Your task to perform on an android device: Is it going to rain this weekend? Image 0: 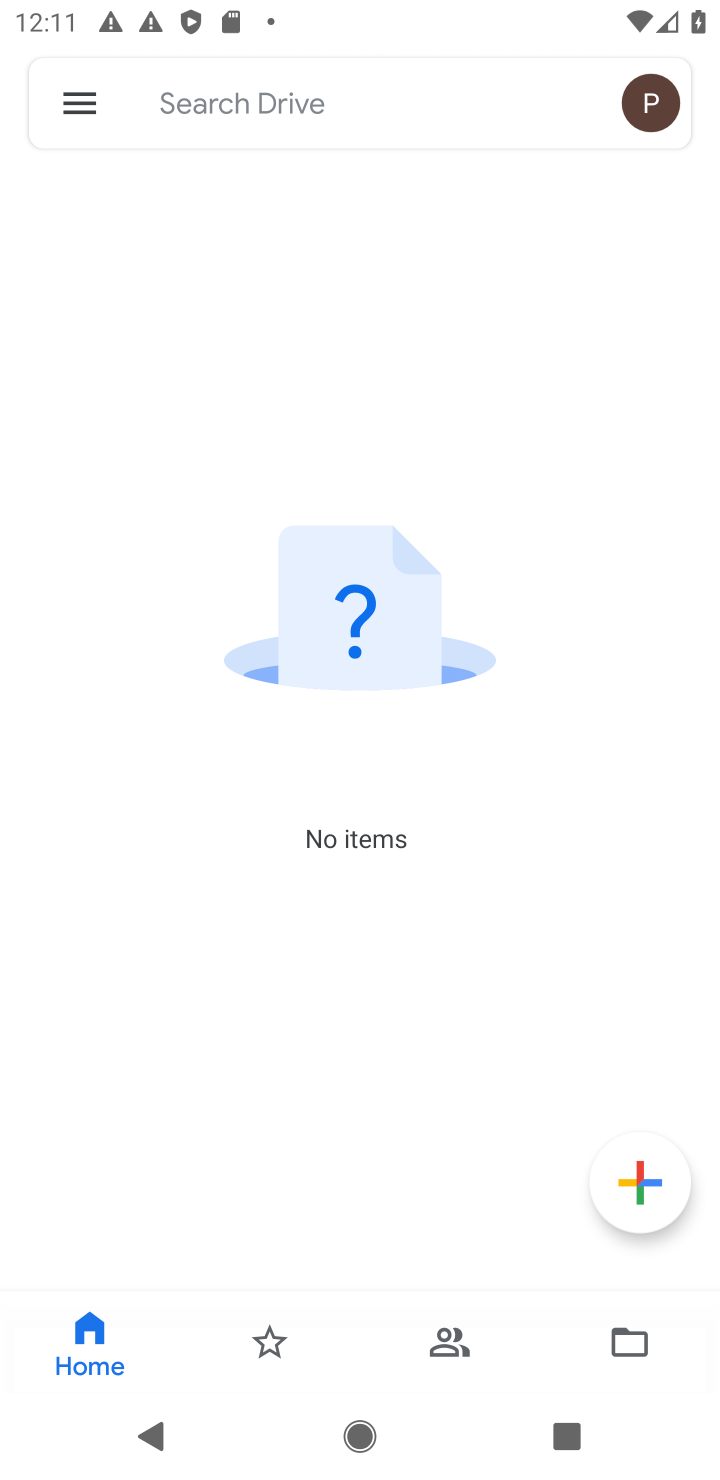
Step 0: press home button
Your task to perform on an android device: Is it going to rain this weekend? Image 1: 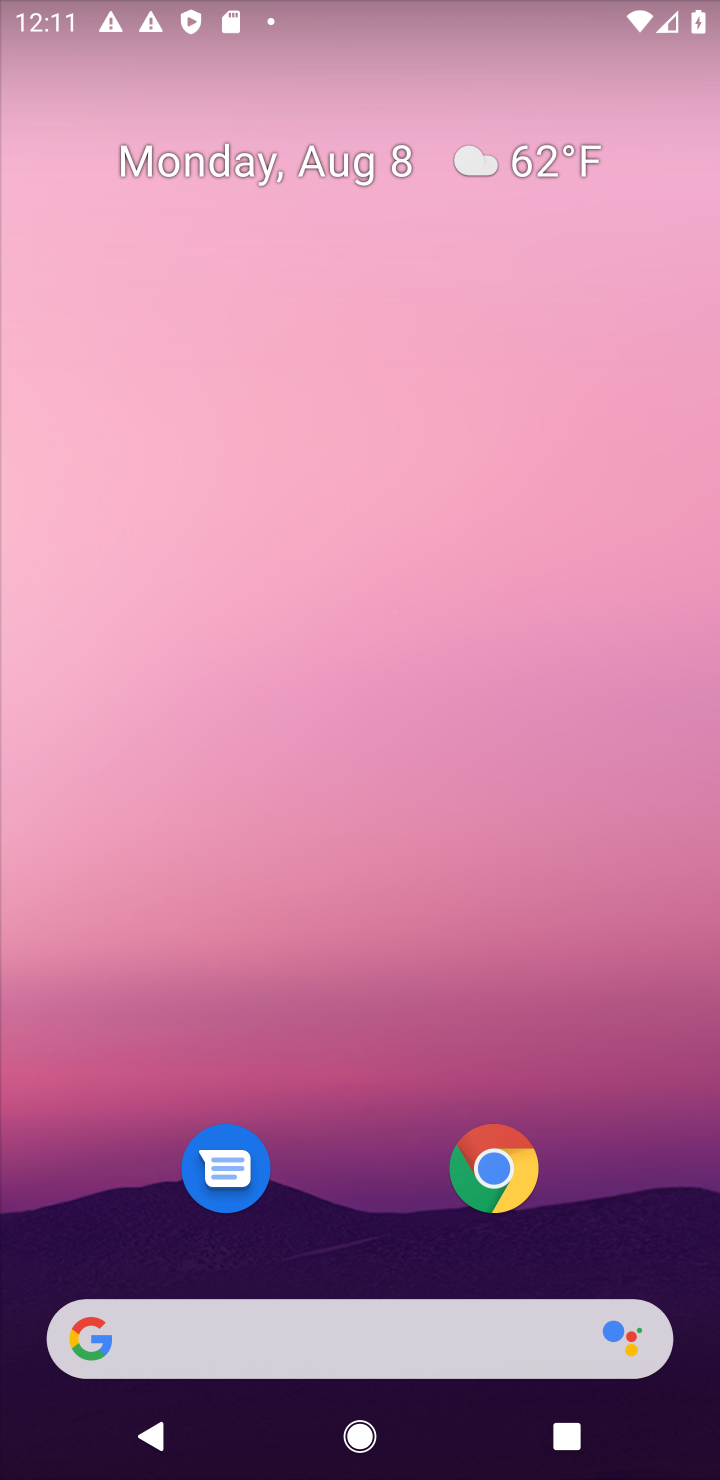
Step 1: drag from (408, 1265) to (450, 164)
Your task to perform on an android device: Is it going to rain this weekend? Image 2: 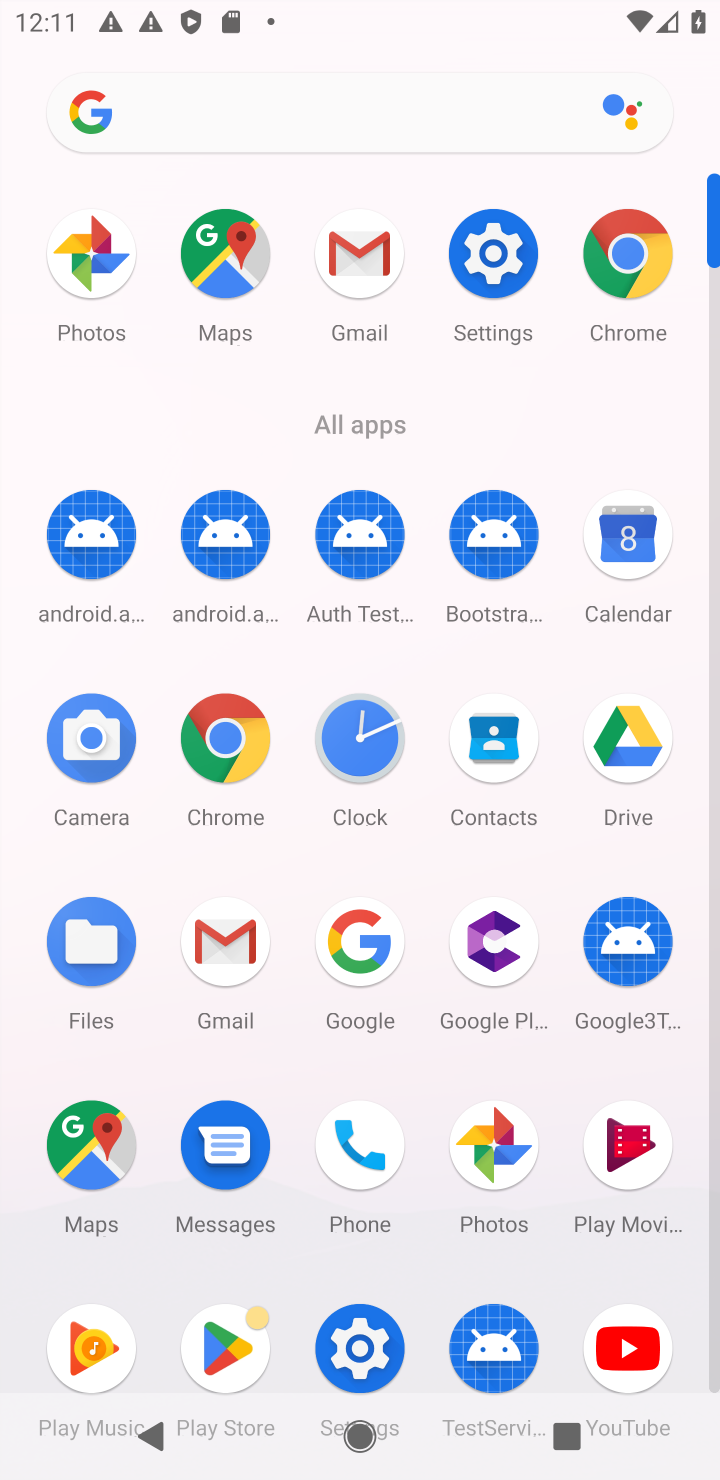
Step 2: click (318, 106)
Your task to perform on an android device: Is it going to rain this weekend? Image 3: 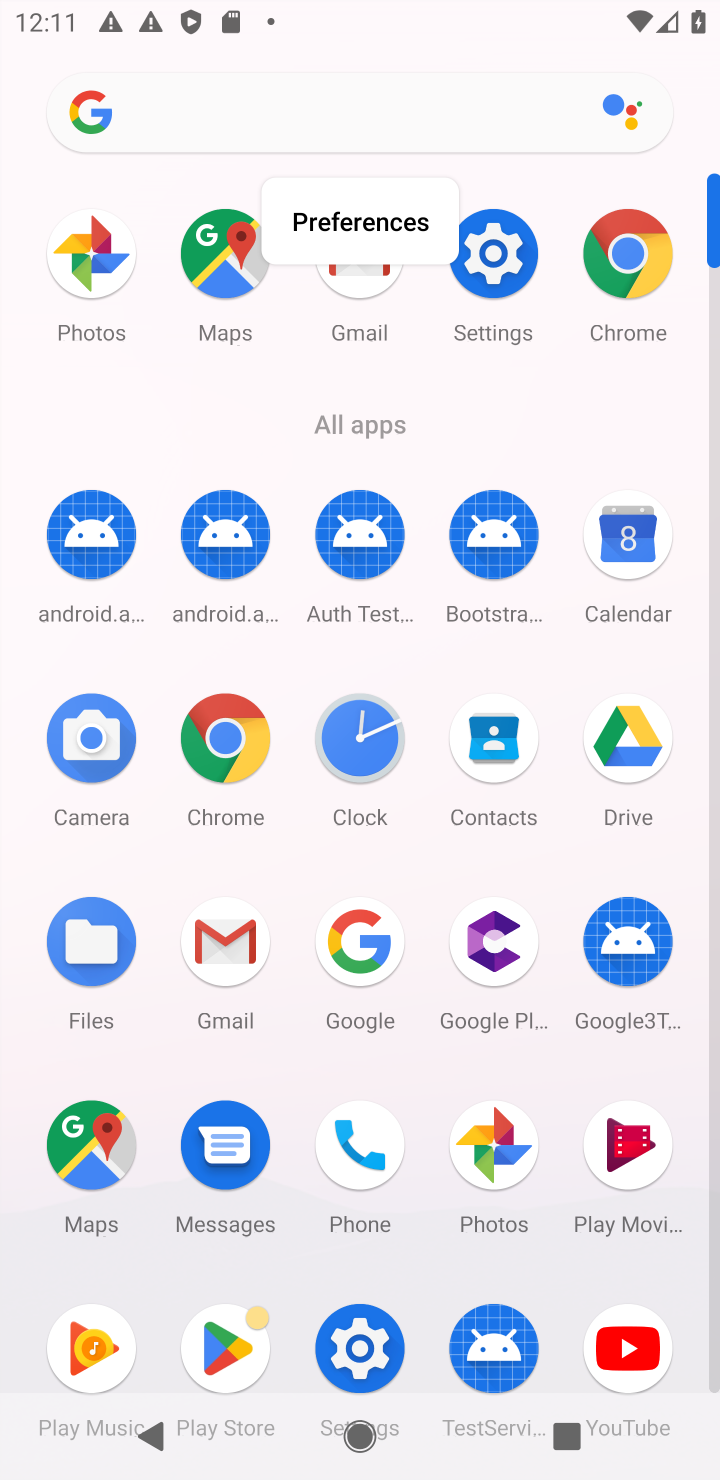
Step 3: click (322, 130)
Your task to perform on an android device: Is it going to rain this weekend? Image 4: 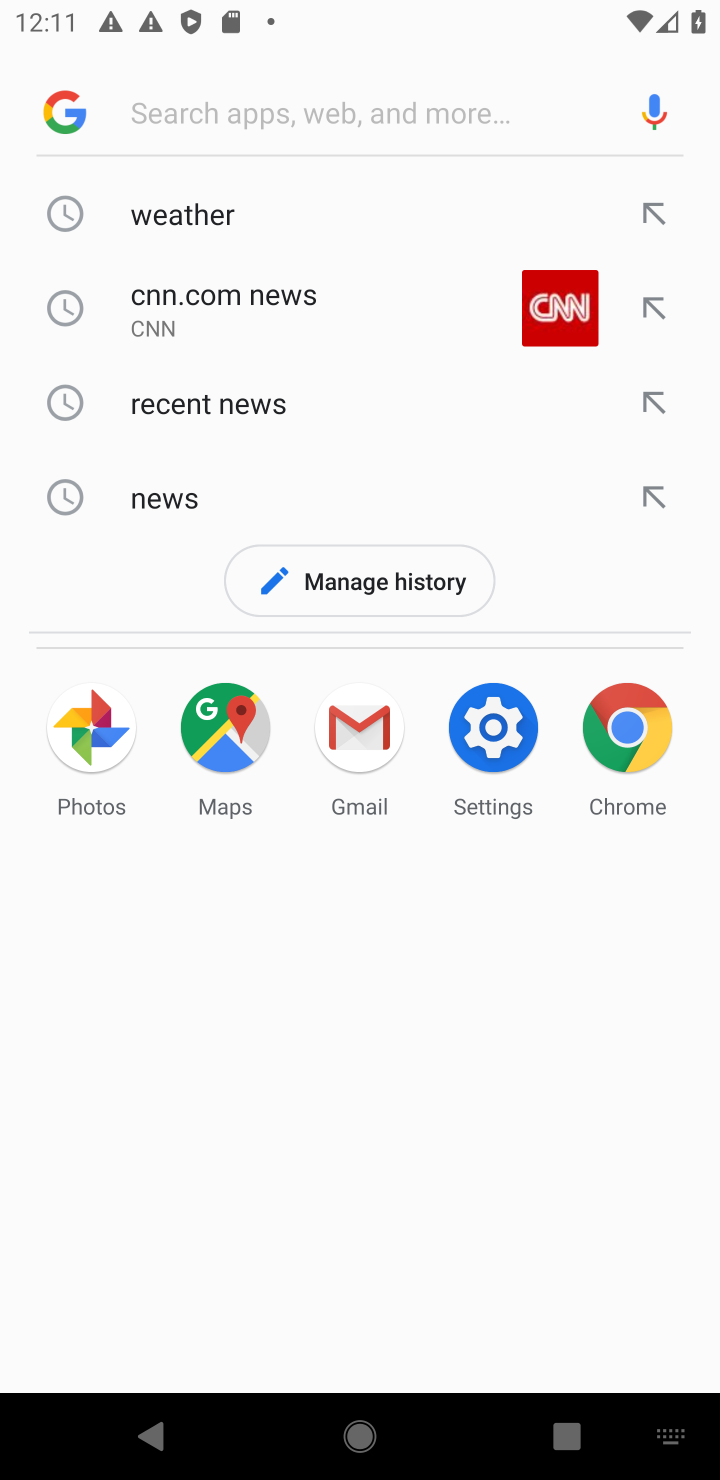
Step 4: task complete